Your task to perform on an android device: uninstall "Booking.com: Hotels and more" Image 0: 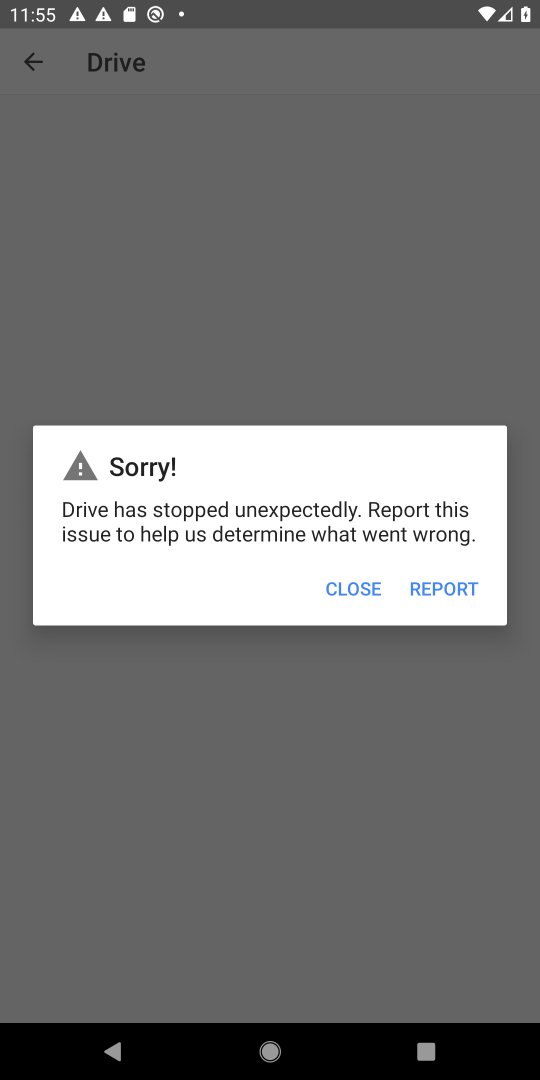
Step 0: press home button
Your task to perform on an android device: uninstall "Booking.com: Hotels and more" Image 1: 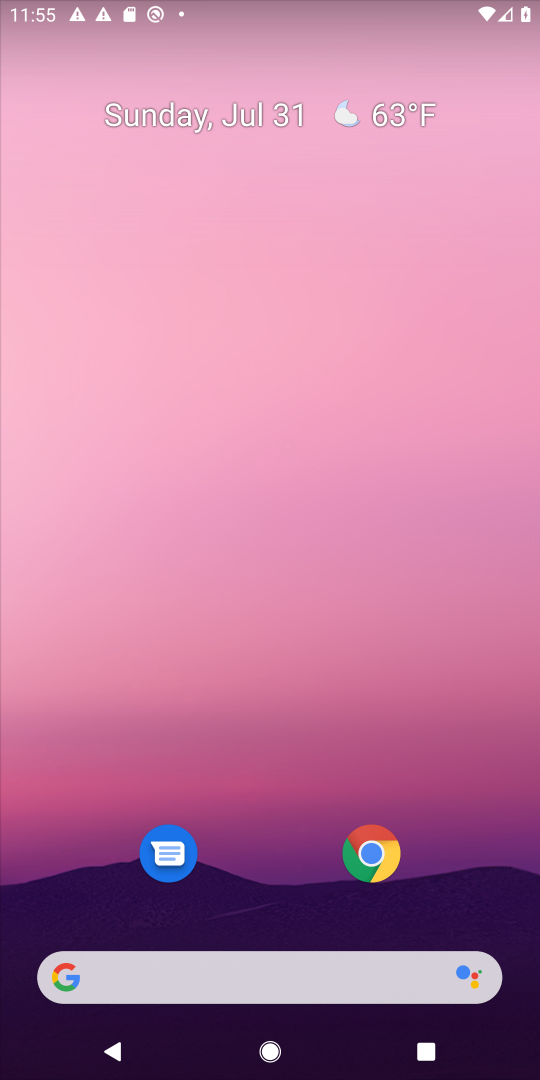
Step 1: drag from (301, 1072) to (303, 57)
Your task to perform on an android device: uninstall "Booking.com: Hotels and more" Image 2: 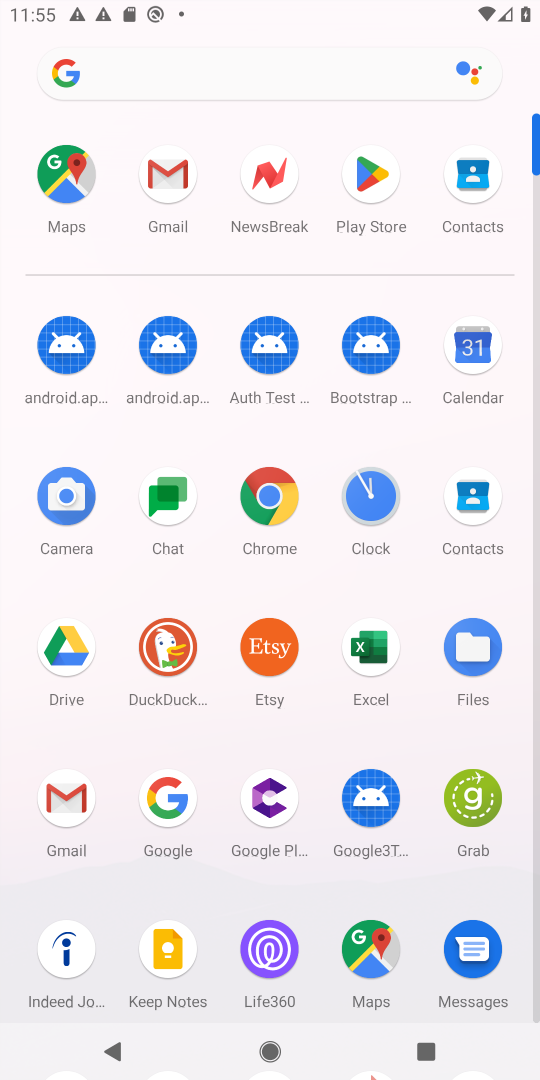
Step 2: click (371, 164)
Your task to perform on an android device: uninstall "Booking.com: Hotels and more" Image 3: 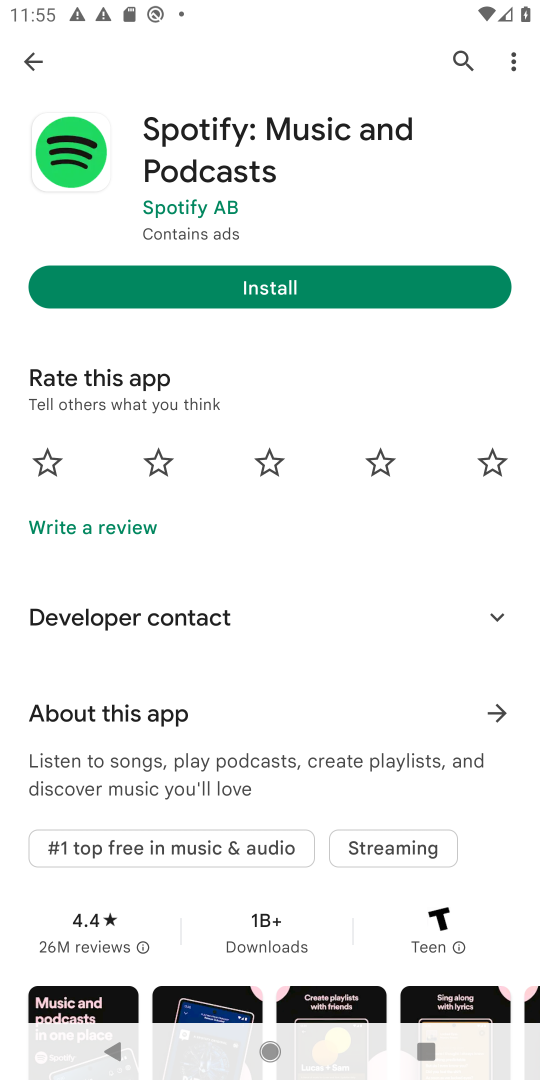
Step 3: click (461, 54)
Your task to perform on an android device: uninstall "Booking.com: Hotels and more" Image 4: 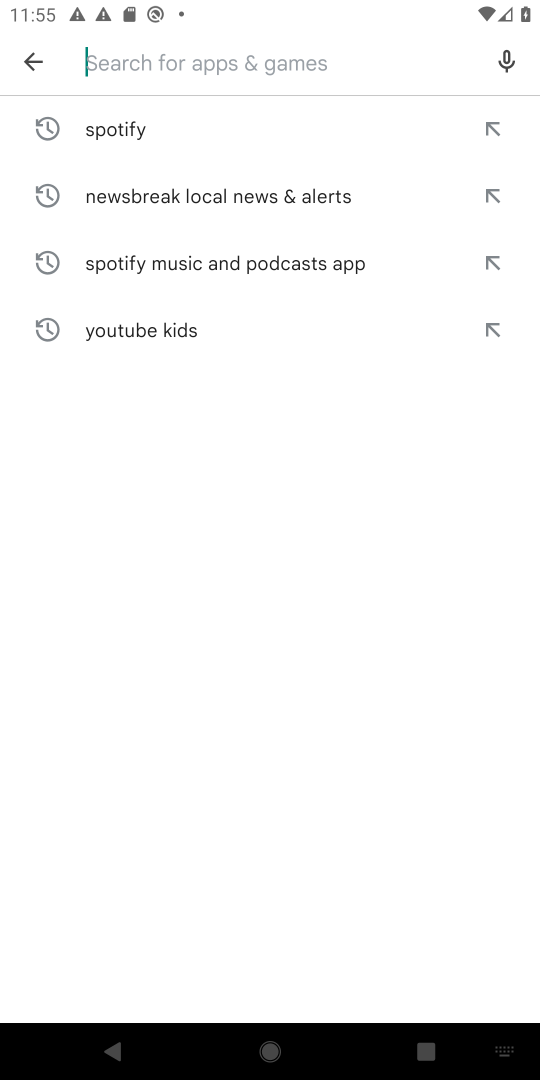
Step 4: type "Booking.com: Hotels and more"
Your task to perform on an android device: uninstall "Booking.com: Hotels and more" Image 5: 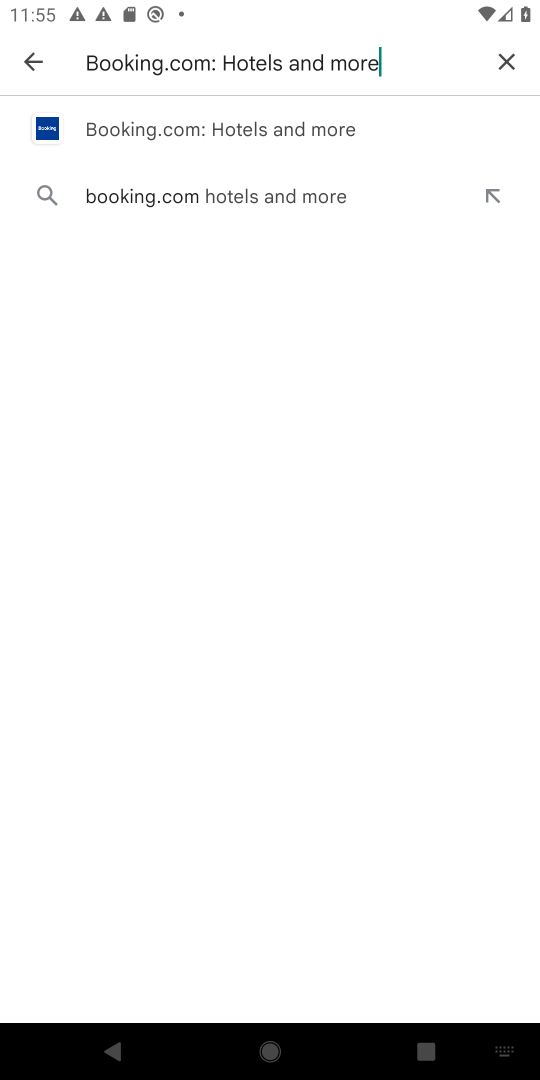
Step 5: click (187, 124)
Your task to perform on an android device: uninstall "Booking.com: Hotels and more" Image 6: 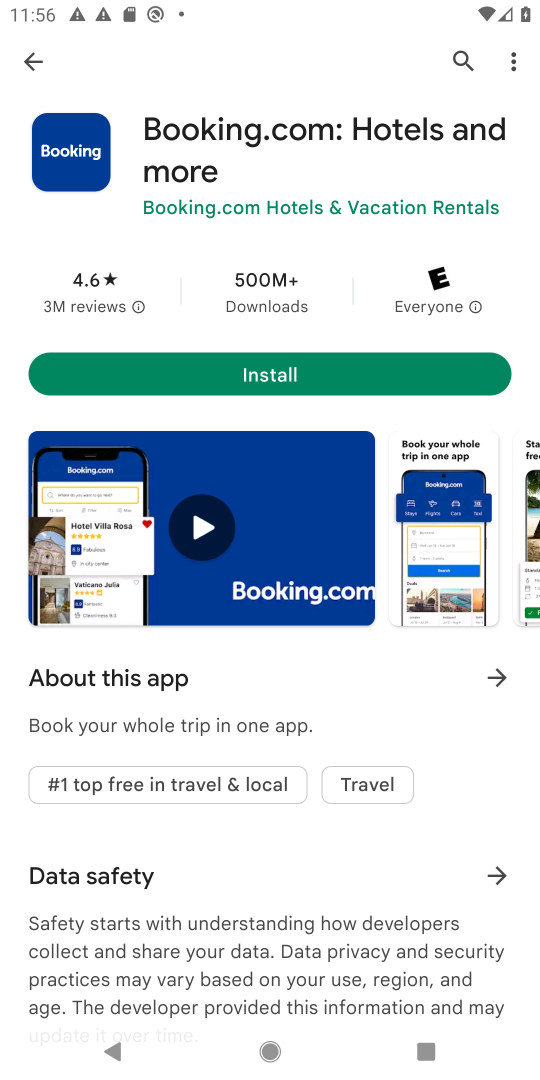
Step 6: task complete